Your task to perform on an android device: When is my next appointment? Image 0: 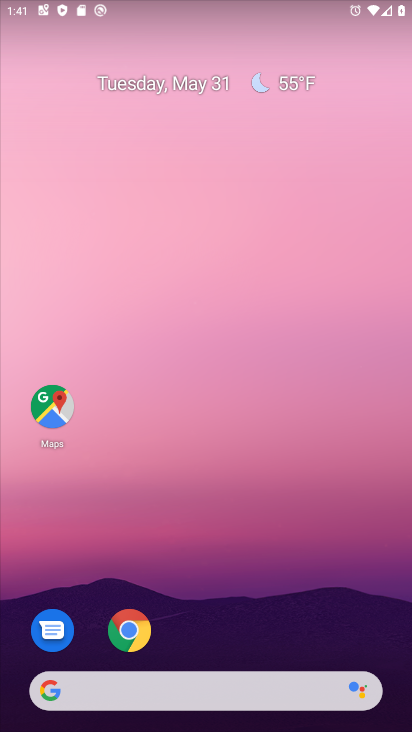
Step 0: drag from (261, 671) to (323, 121)
Your task to perform on an android device: When is my next appointment? Image 1: 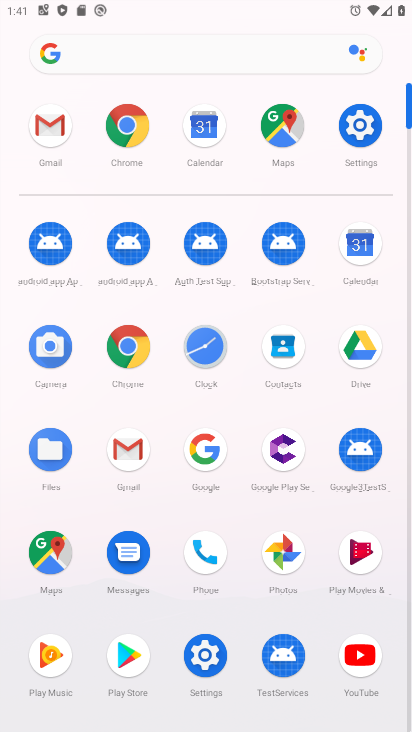
Step 1: click (344, 245)
Your task to perform on an android device: When is my next appointment? Image 2: 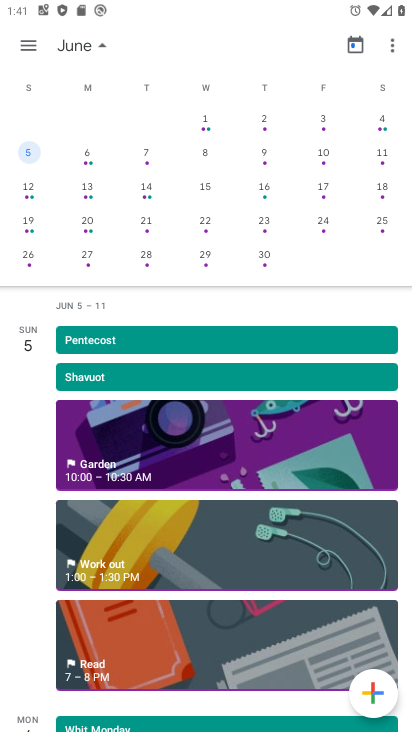
Step 2: drag from (70, 144) to (410, 183)
Your task to perform on an android device: When is my next appointment? Image 3: 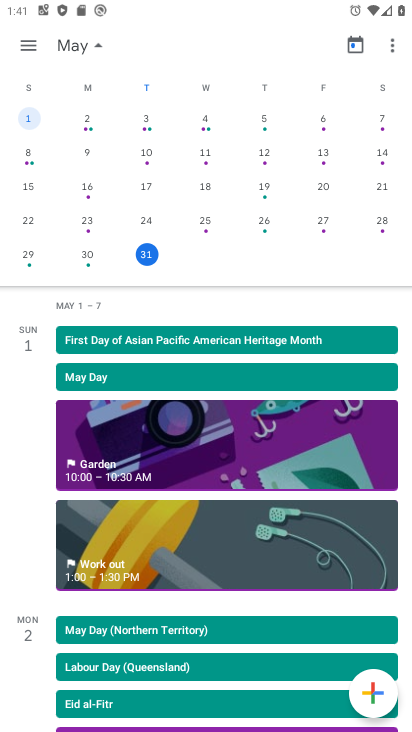
Step 3: click (193, 457)
Your task to perform on an android device: When is my next appointment? Image 4: 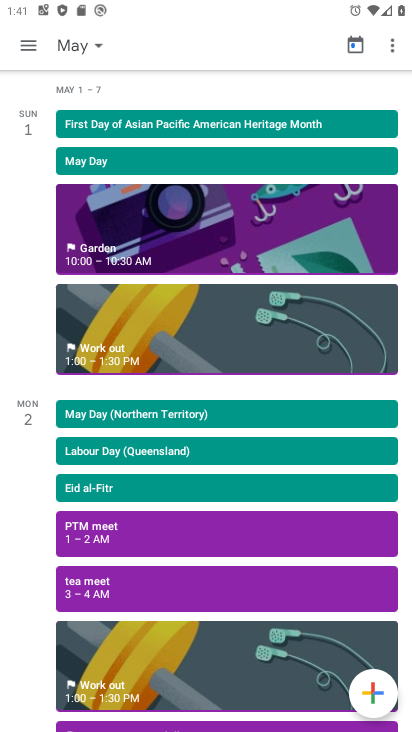
Step 4: click (161, 349)
Your task to perform on an android device: When is my next appointment? Image 5: 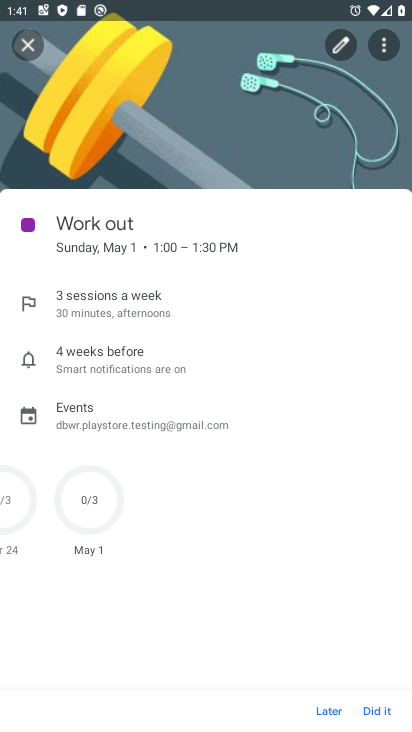
Step 5: task complete